Your task to perform on an android device: change the clock display to analog Image 0: 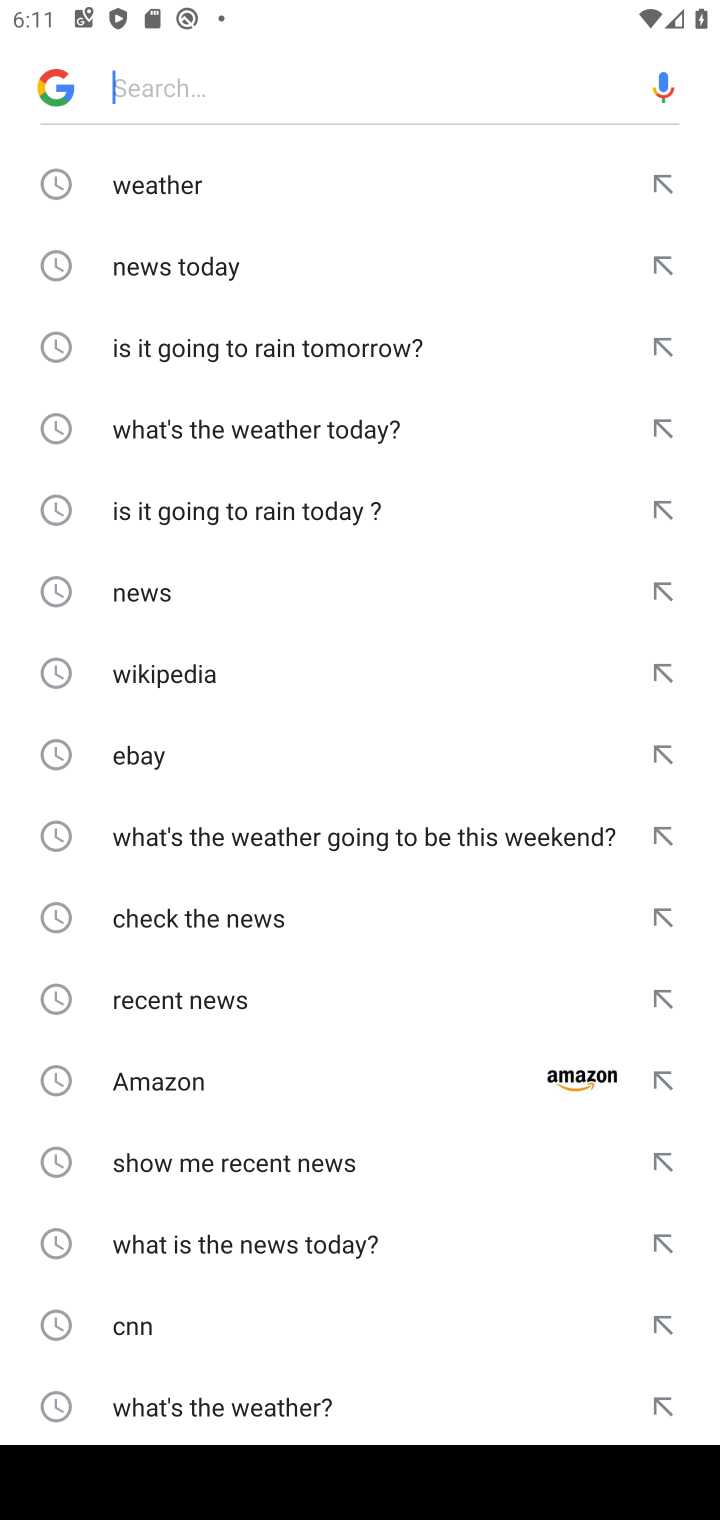
Step 0: press back button
Your task to perform on an android device: change the clock display to analog Image 1: 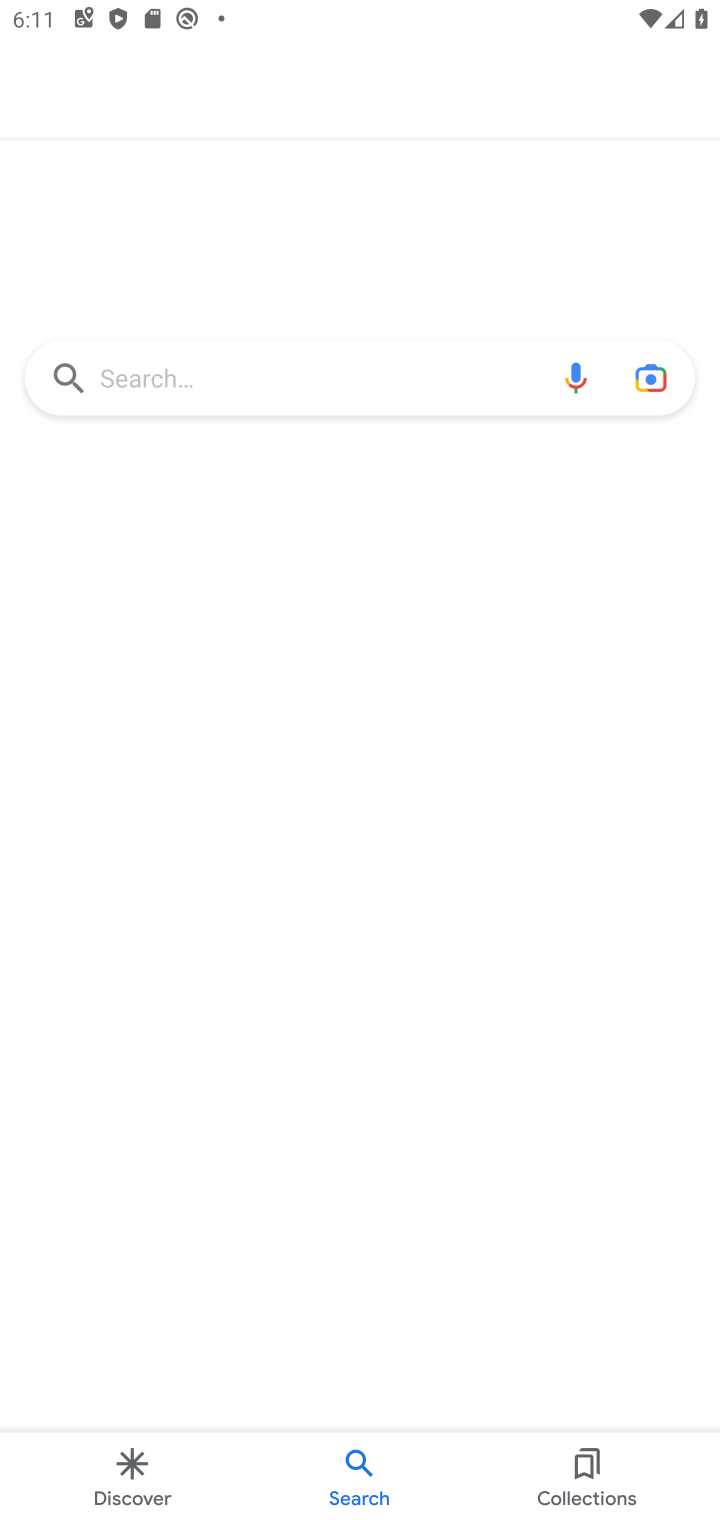
Step 1: press back button
Your task to perform on an android device: change the clock display to analog Image 2: 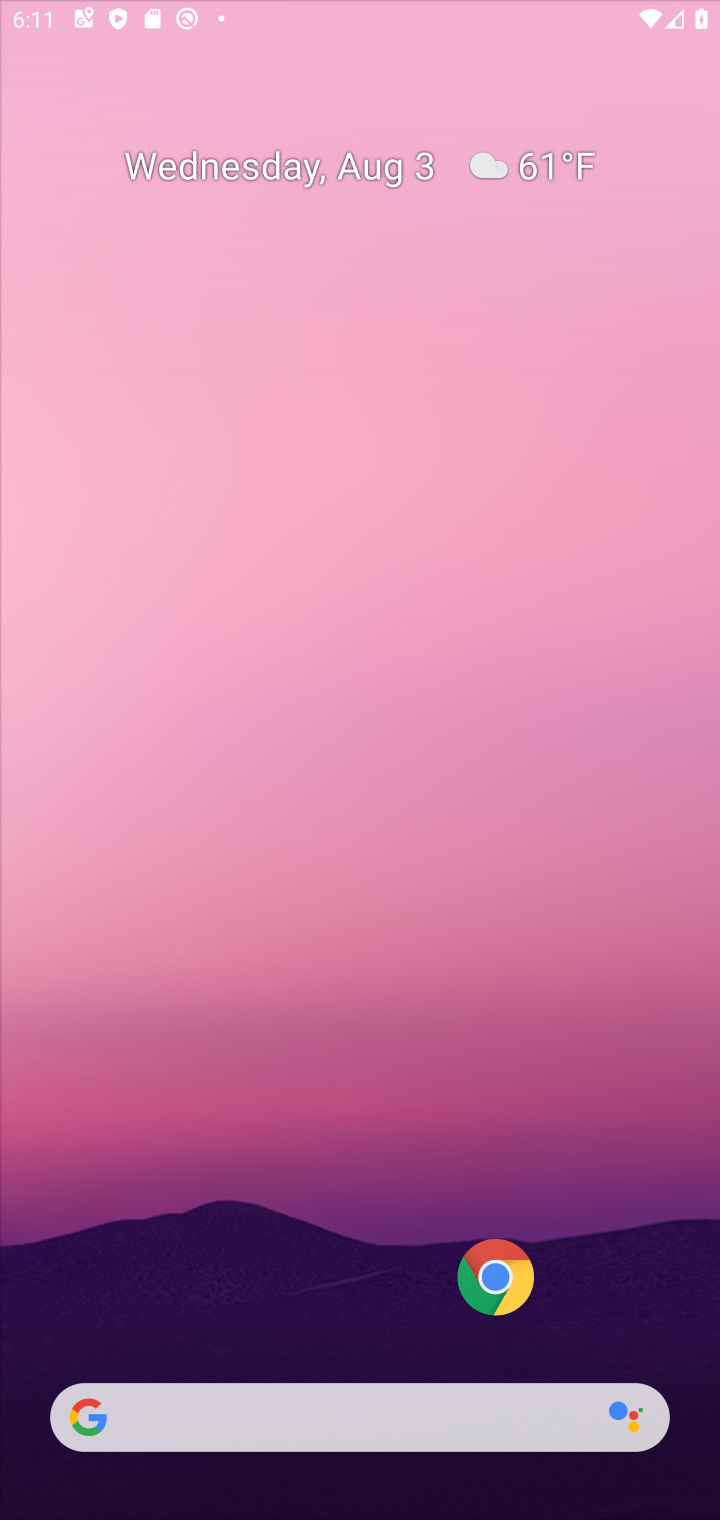
Step 2: press back button
Your task to perform on an android device: change the clock display to analog Image 3: 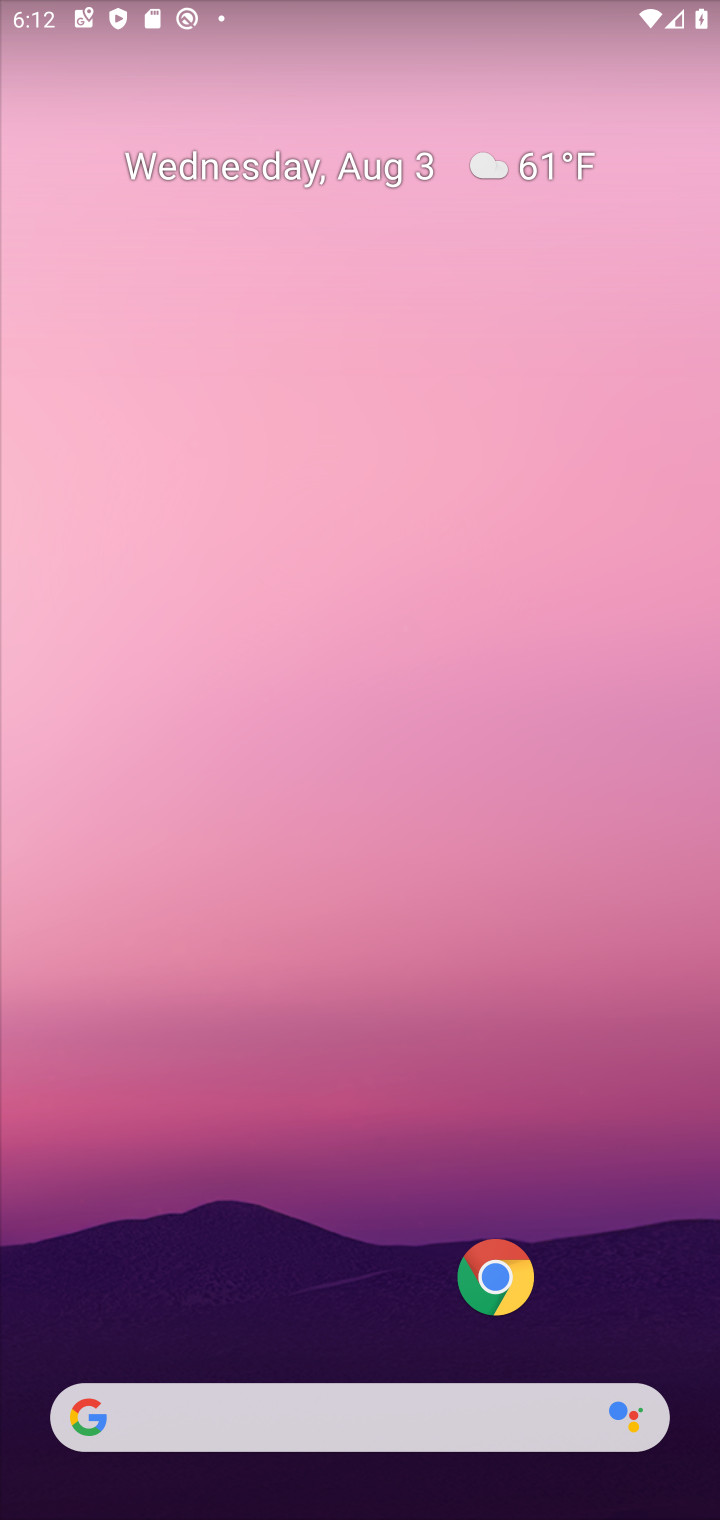
Step 3: drag from (278, 1312) to (633, 78)
Your task to perform on an android device: change the clock display to analog Image 4: 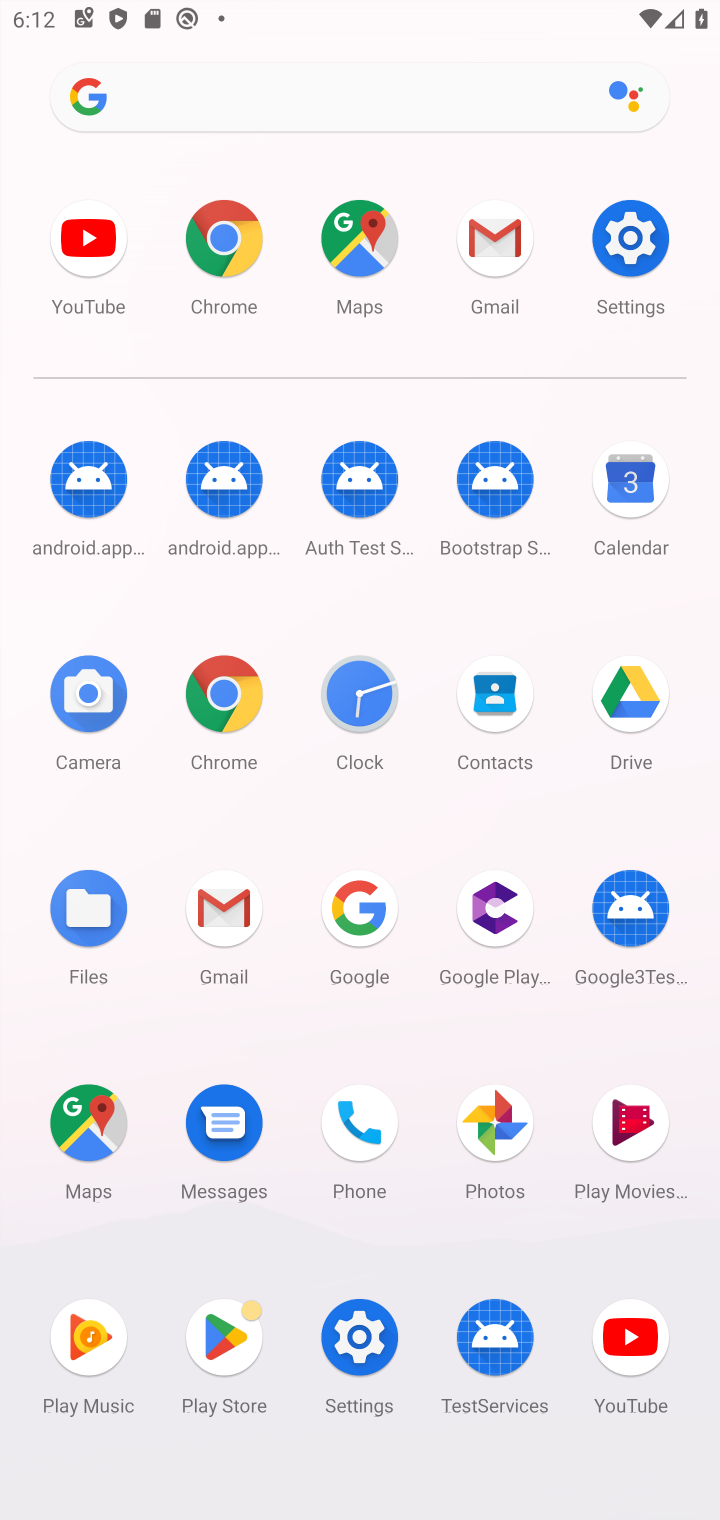
Step 4: click (368, 714)
Your task to perform on an android device: change the clock display to analog Image 5: 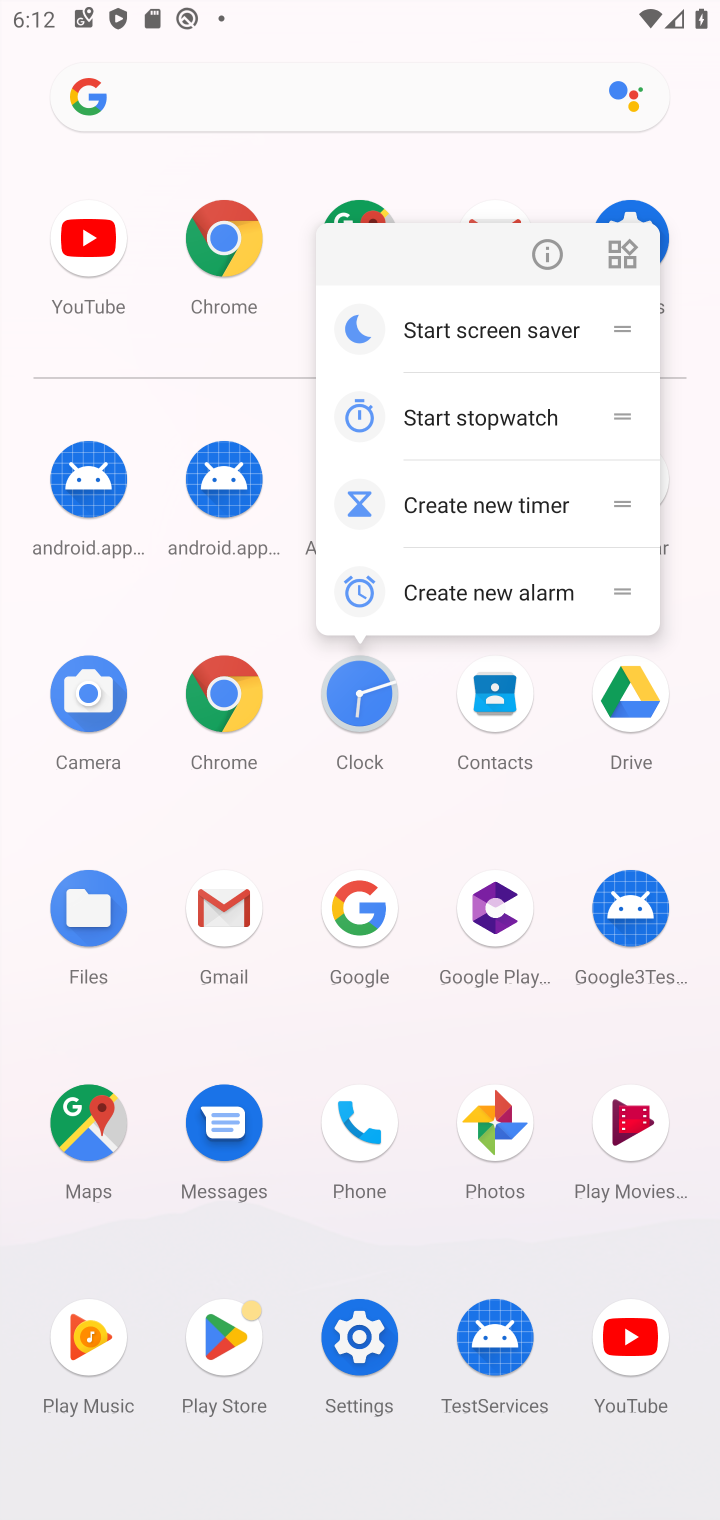
Step 5: click (362, 670)
Your task to perform on an android device: change the clock display to analog Image 6: 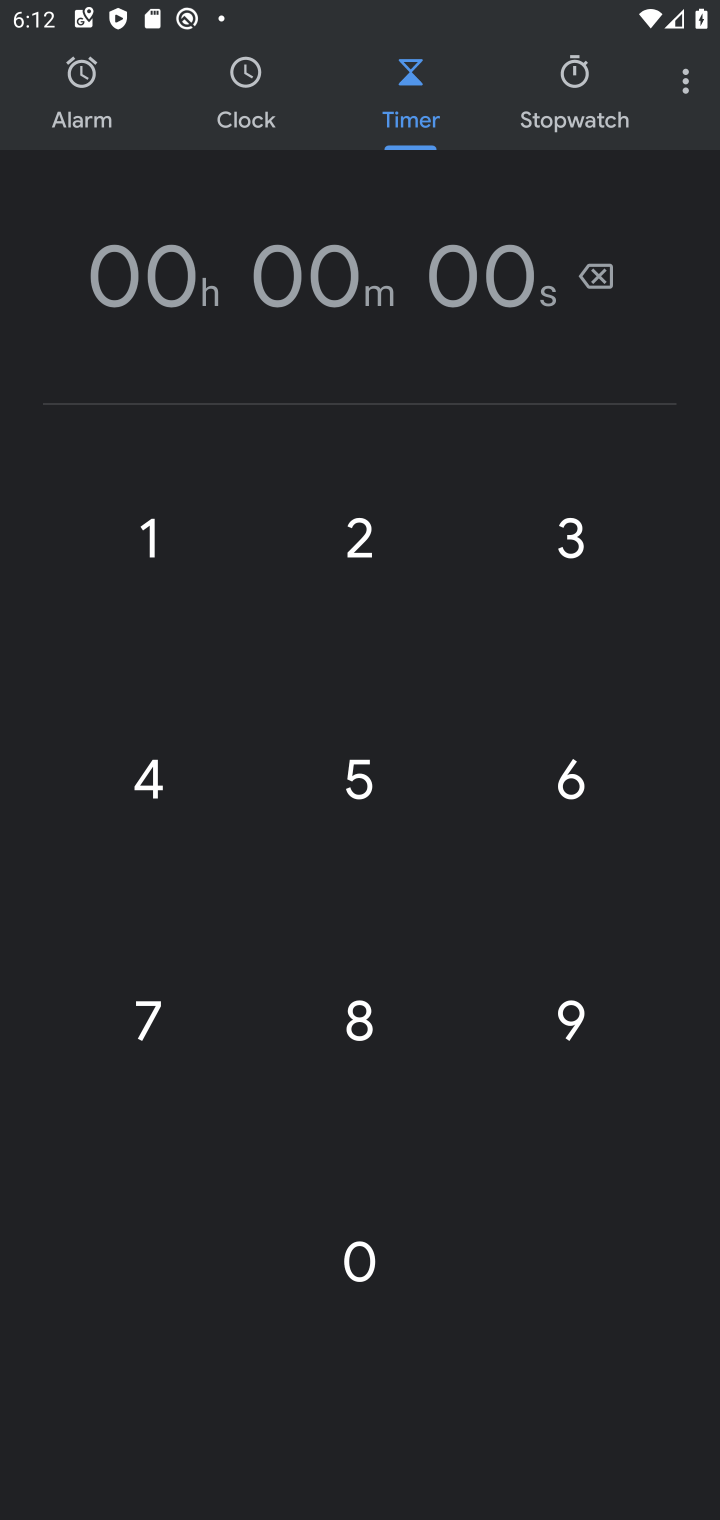
Step 6: click (687, 73)
Your task to perform on an android device: change the clock display to analog Image 7: 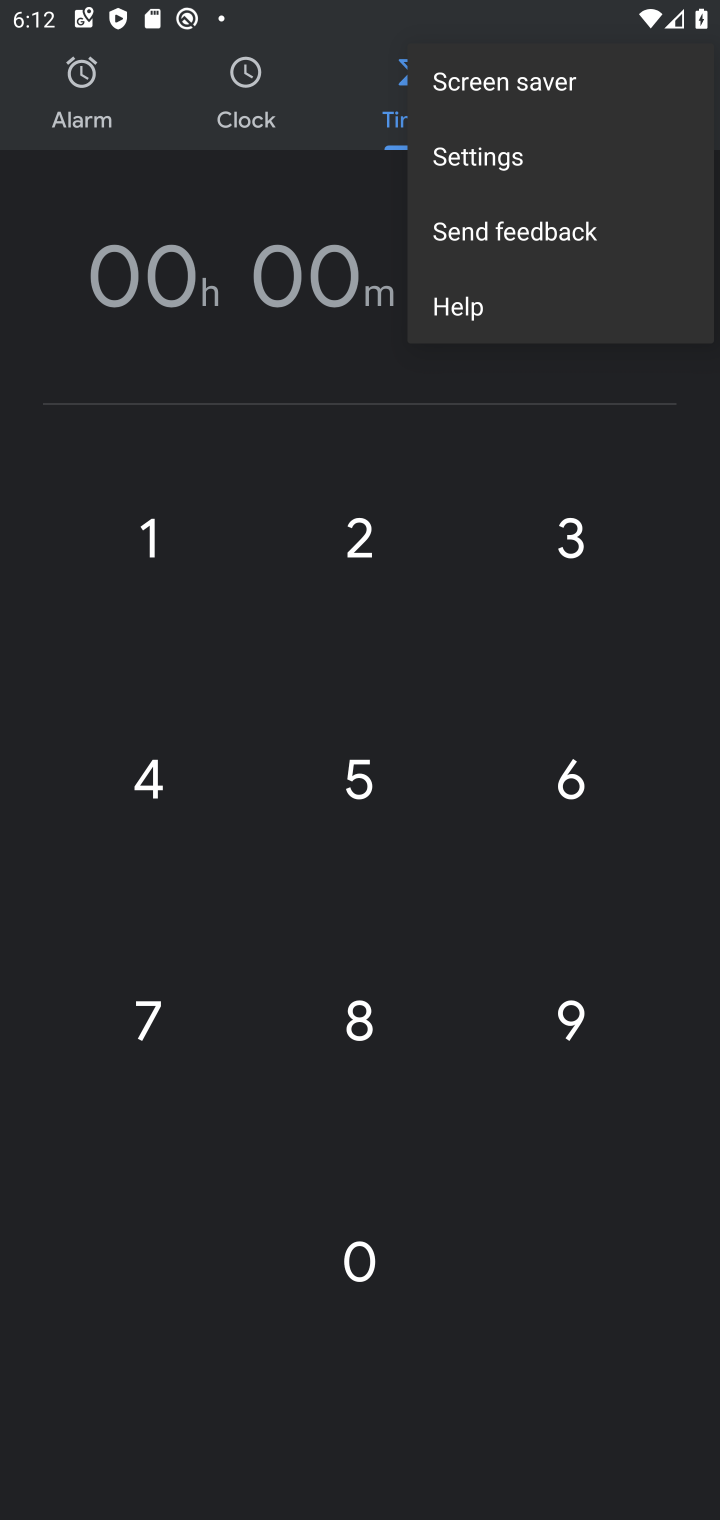
Step 7: click (519, 161)
Your task to perform on an android device: change the clock display to analog Image 8: 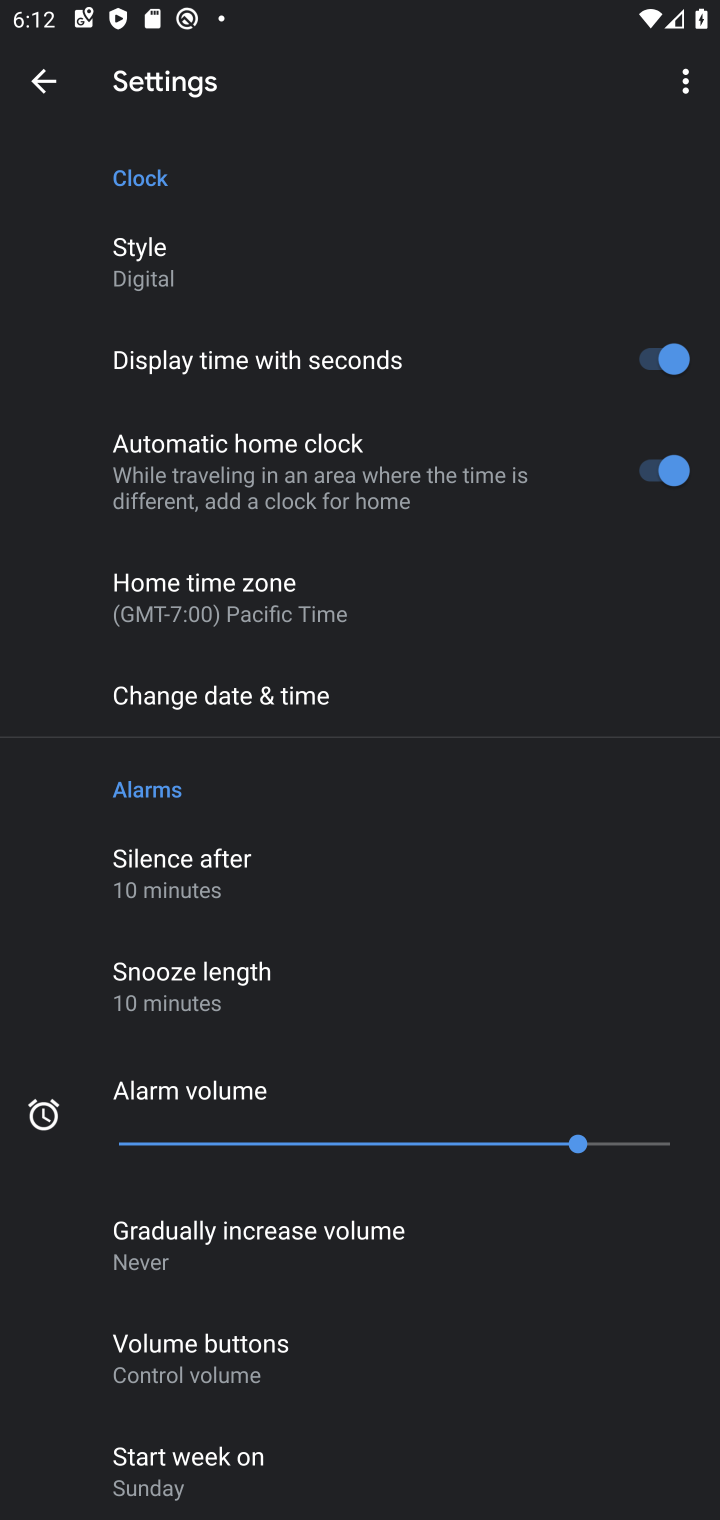
Step 8: click (267, 271)
Your task to perform on an android device: change the clock display to analog Image 9: 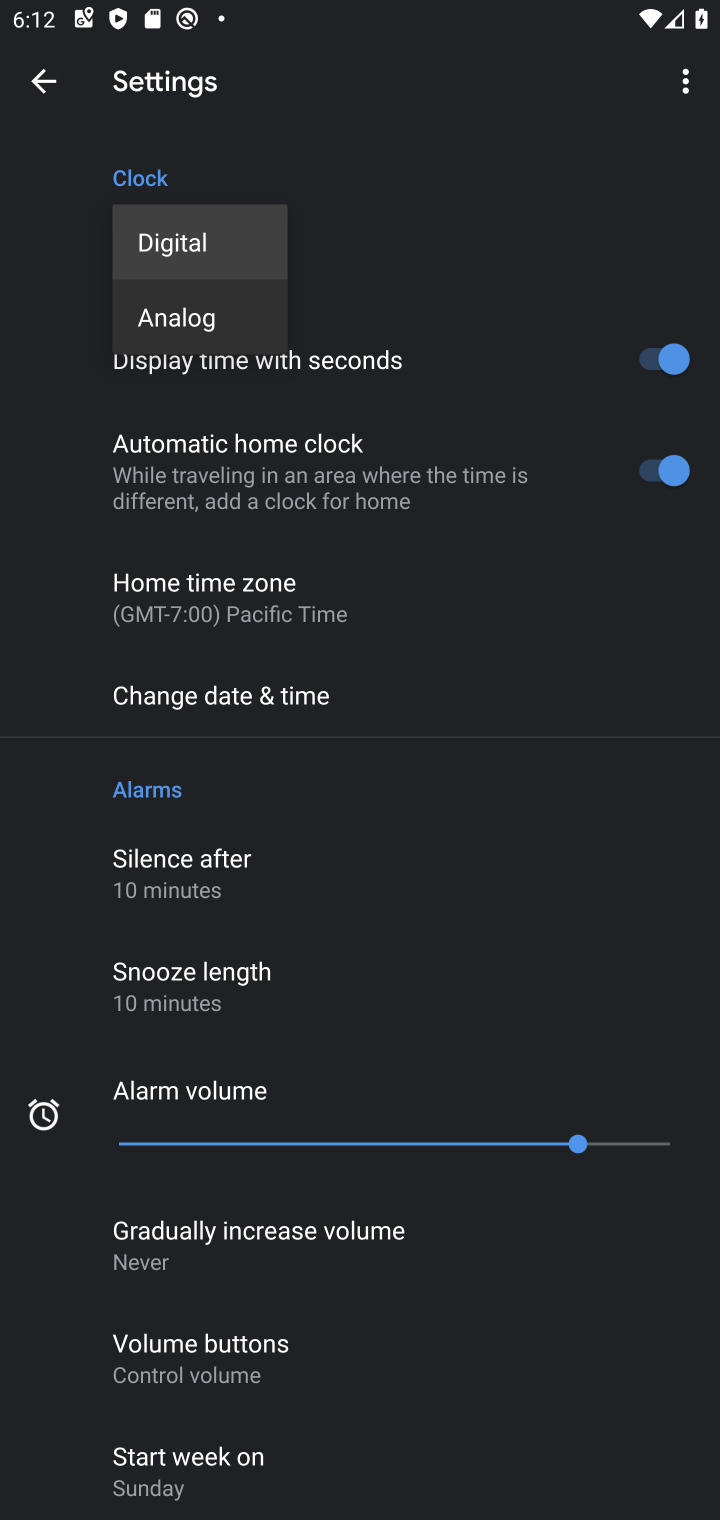
Step 9: click (180, 306)
Your task to perform on an android device: change the clock display to analog Image 10: 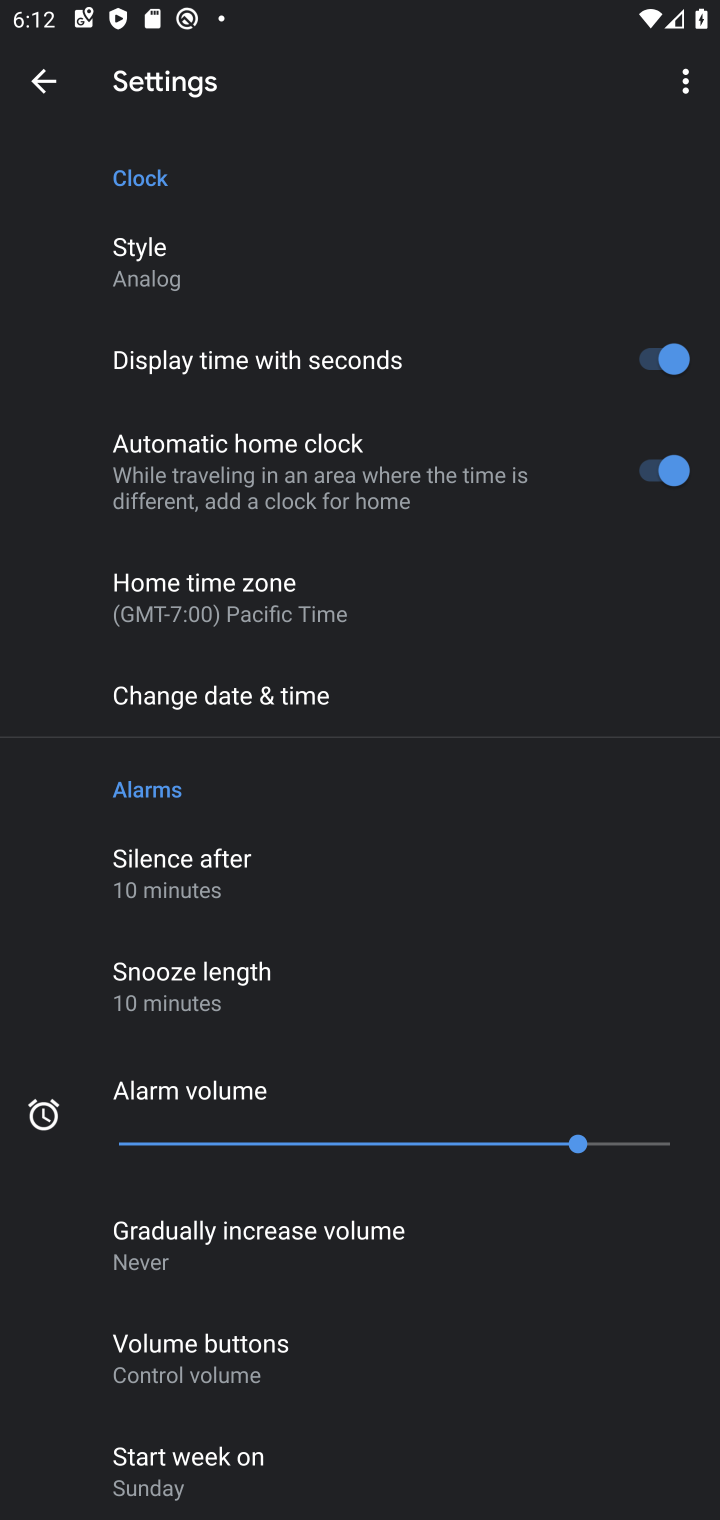
Step 10: task complete